Your task to perform on an android device: open chrome privacy settings Image 0: 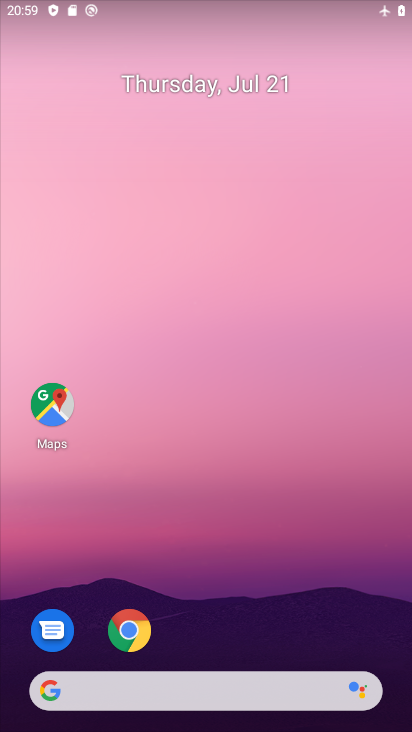
Step 0: drag from (165, 649) to (237, 198)
Your task to perform on an android device: open chrome privacy settings Image 1: 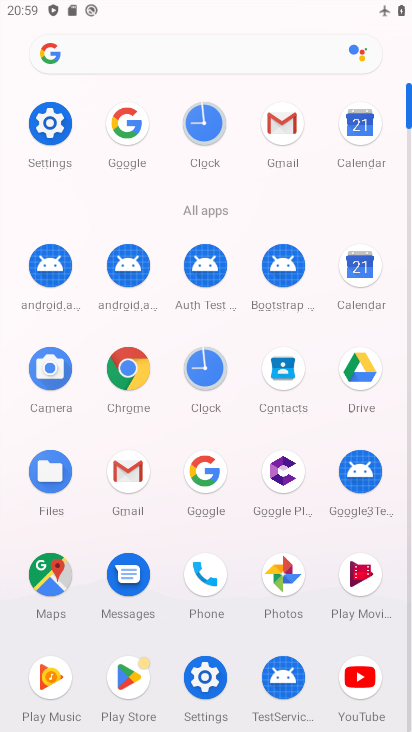
Step 1: click (135, 372)
Your task to perform on an android device: open chrome privacy settings Image 2: 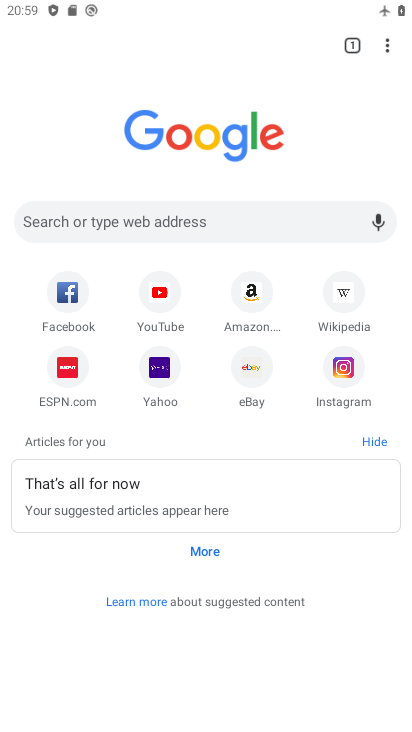
Step 2: click (389, 44)
Your task to perform on an android device: open chrome privacy settings Image 3: 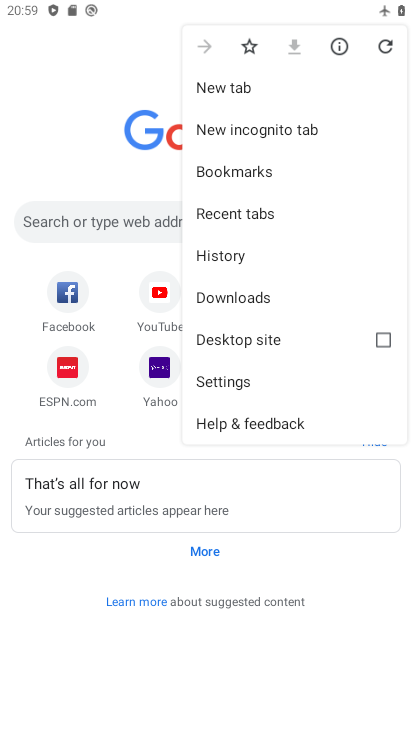
Step 3: click (238, 384)
Your task to perform on an android device: open chrome privacy settings Image 4: 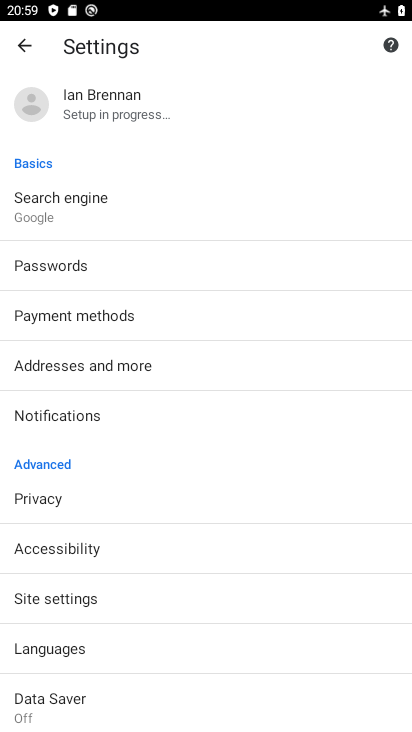
Step 4: click (53, 502)
Your task to perform on an android device: open chrome privacy settings Image 5: 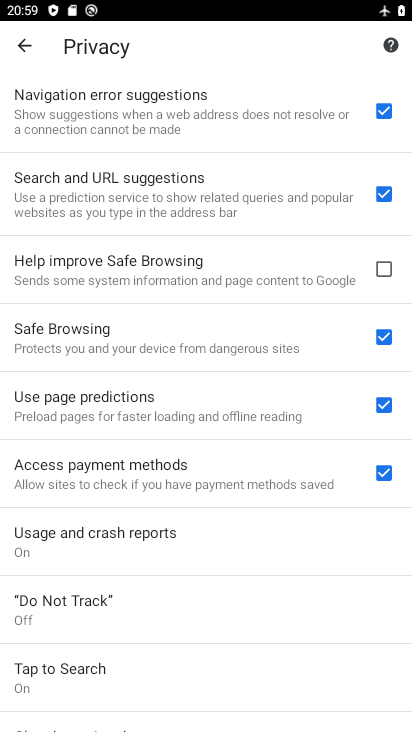
Step 5: task complete